Your task to perform on an android device: delete a single message in the gmail app Image 0: 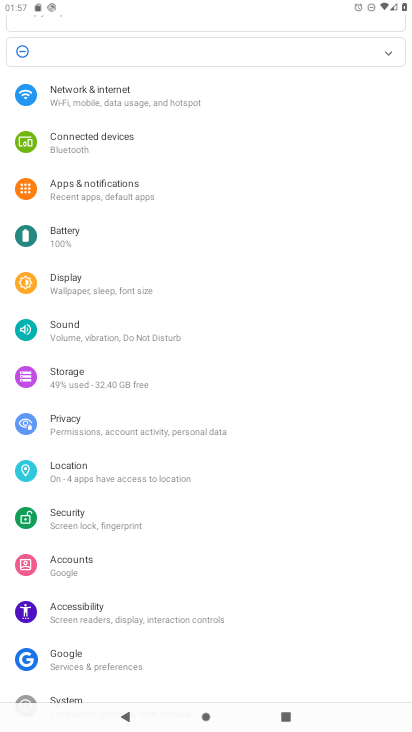
Step 0: press home button
Your task to perform on an android device: delete a single message in the gmail app Image 1: 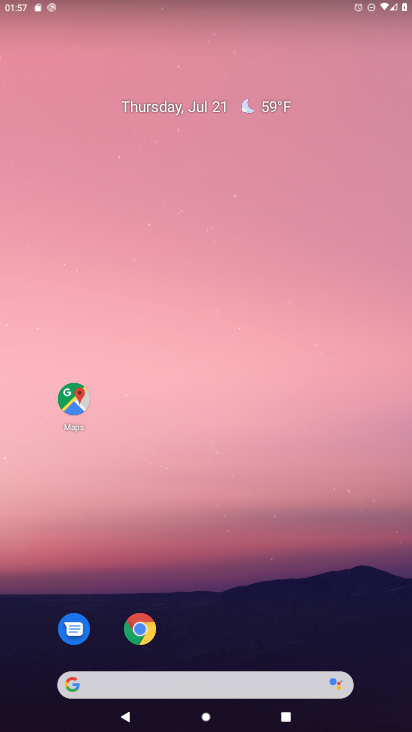
Step 1: drag from (381, 654) to (312, 80)
Your task to perform on an android device: delete a single message in the gmail app Image 2: 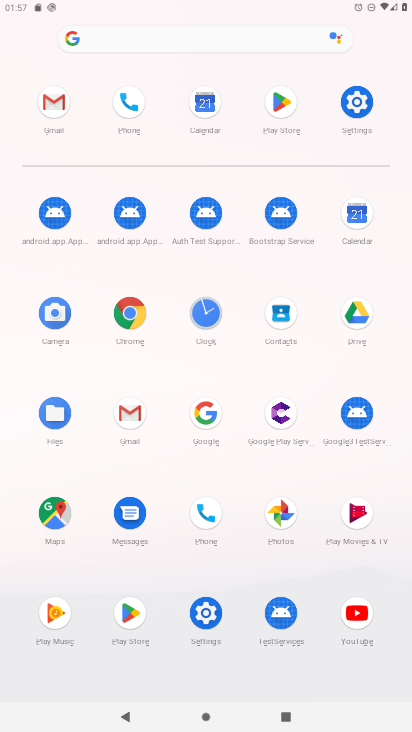
Step 2: click (127, 412)
Your task to perform on an android device: delete a single message in the gmail app Image 3: 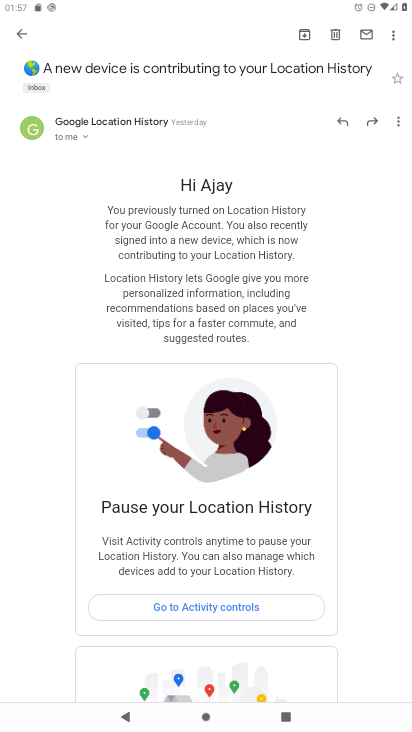
Step 3: press back button
Your task to perform on an android device: delete a single message in the gmail app Image 4: 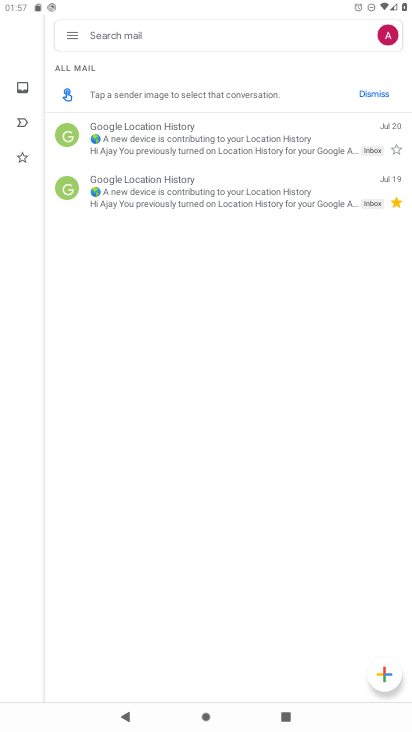
Step 4: click (201, 183)
Your task to perform on an android device: delete a single message in the gmail app Image 5: 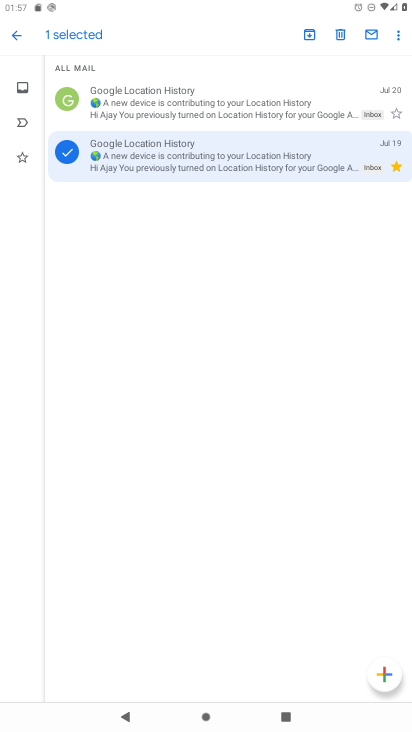
Step 5: click (342, 35)
Your task to perform on an android device: delete a single message in the gmail app Image 6: 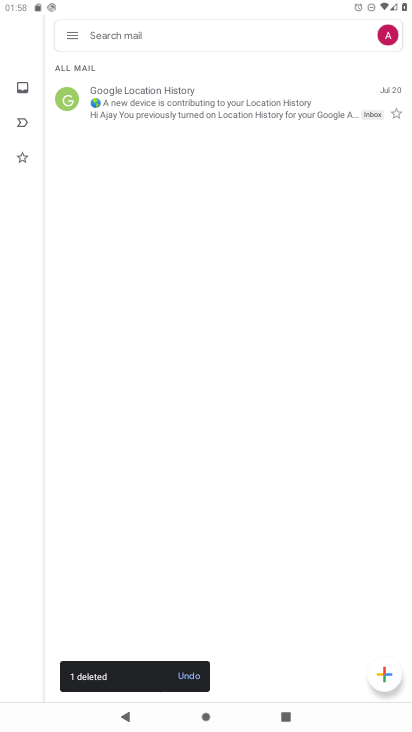
Step 6: task complete